Your task to perform on an android device: check the backup settings in the google photos Image 0: 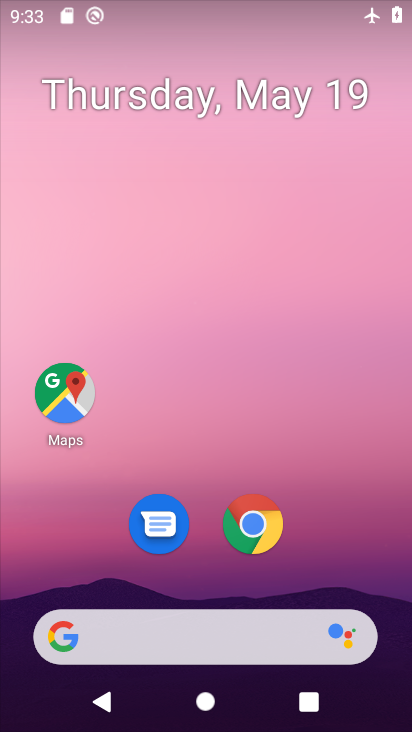
Step 0: drag from (356, 540) to (269, 44)
Your task to perform on an android device: check the backup settings in the google photos Image 1: 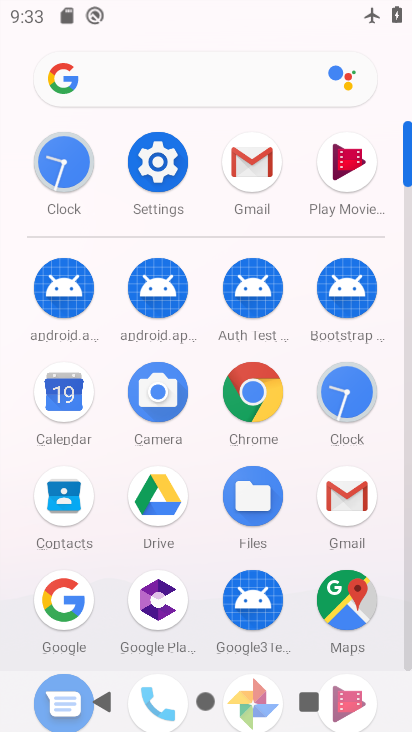
Step 1: drag from (290, 518) to (291, 240)
Your task to perform on an android device: check the backup settings in the google photos Image 2: 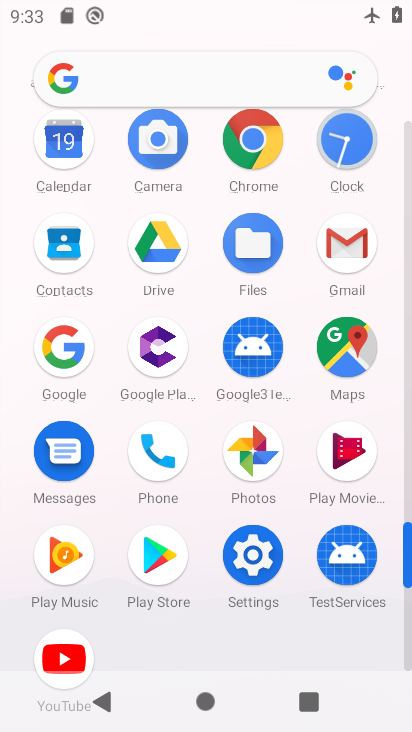
Step 2: click (264, 450)
Your task to perform on an android device: check the backup settings in the google photos Image 3: 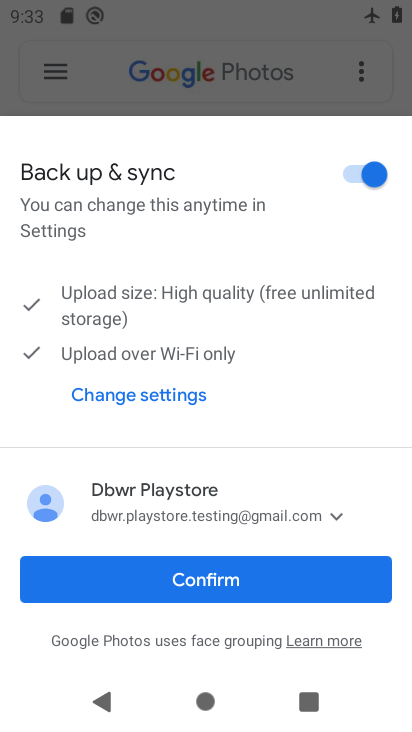
Step 3: click (268, 577)
Your task to perform on an android device: check the backup settings in the google photos Image 4: 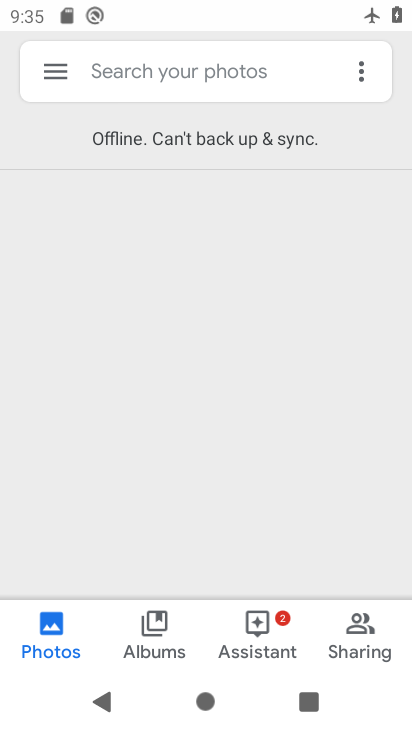
Step 4: task complete